Your task to perform on an android device: Search for "razer nari" on costco.com, select the first entry, and add it to the cart. Image 0: 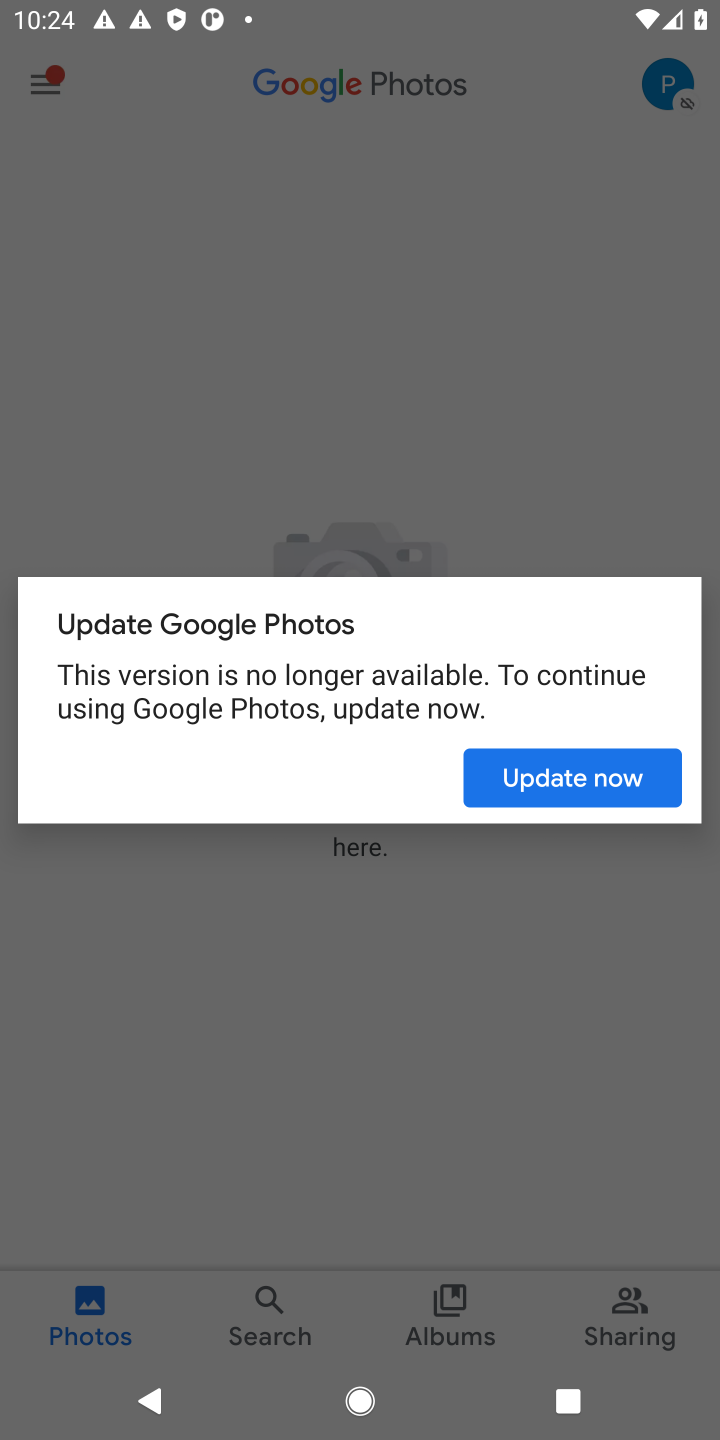
Step 0: press home button
Your task to perform on an android device: Search for "razer nari" on costco.com, select the first entry, and add it to the cart. Image 1: 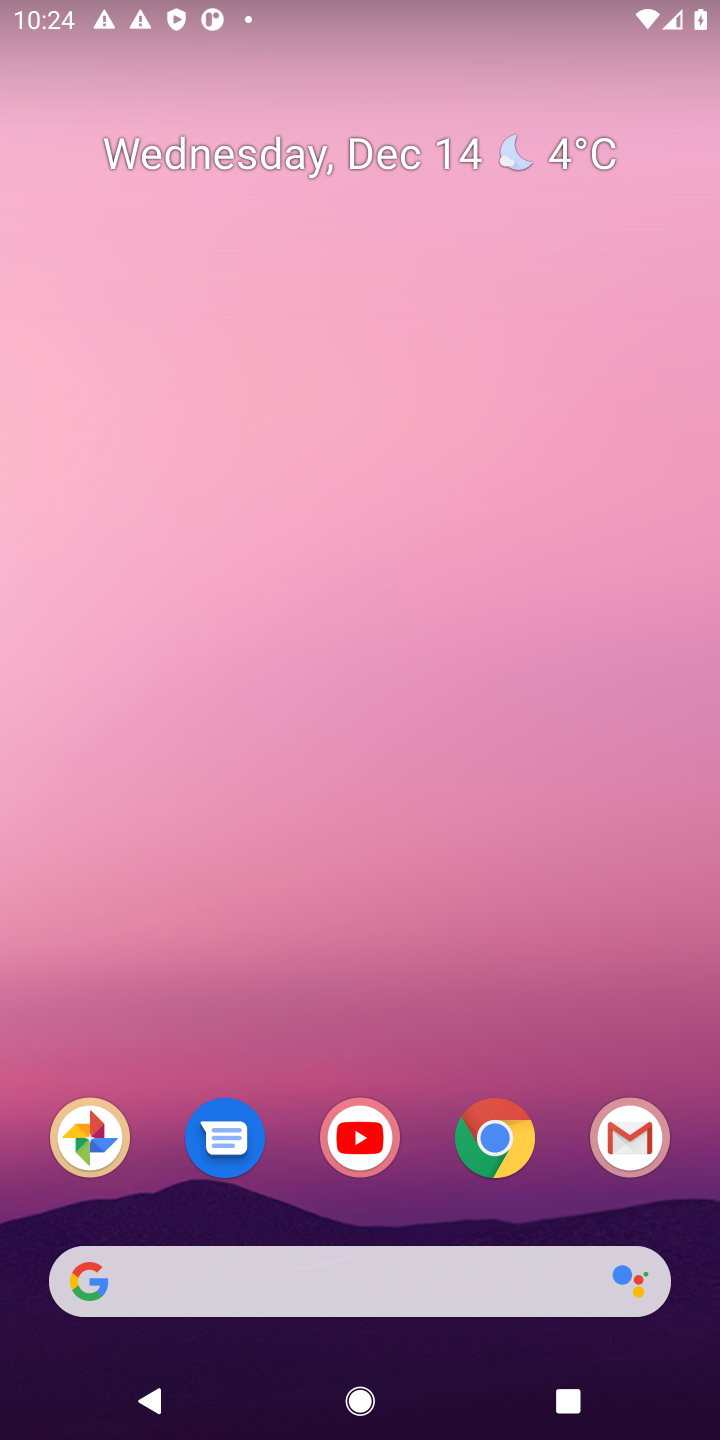
Step 1: click (498, 1151)
Your task to perform on an android device: Search for "razer nari" on costco.com, select the first entry, and add it to the cart. Image 2: 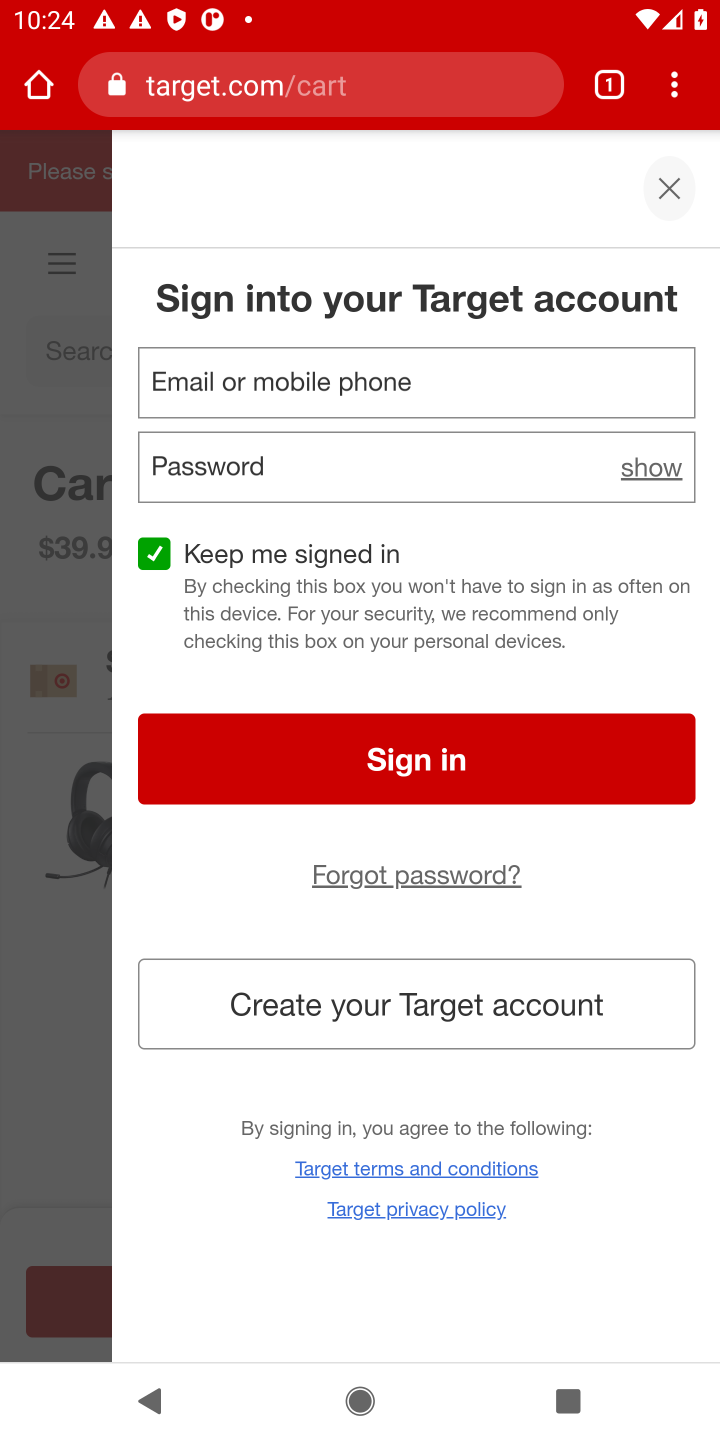
Step 2: click (299, 99)
Your task to perform on an android device: Search for "razer nari" on costco.com, select the first entry, and add it to the cart. Image 3: 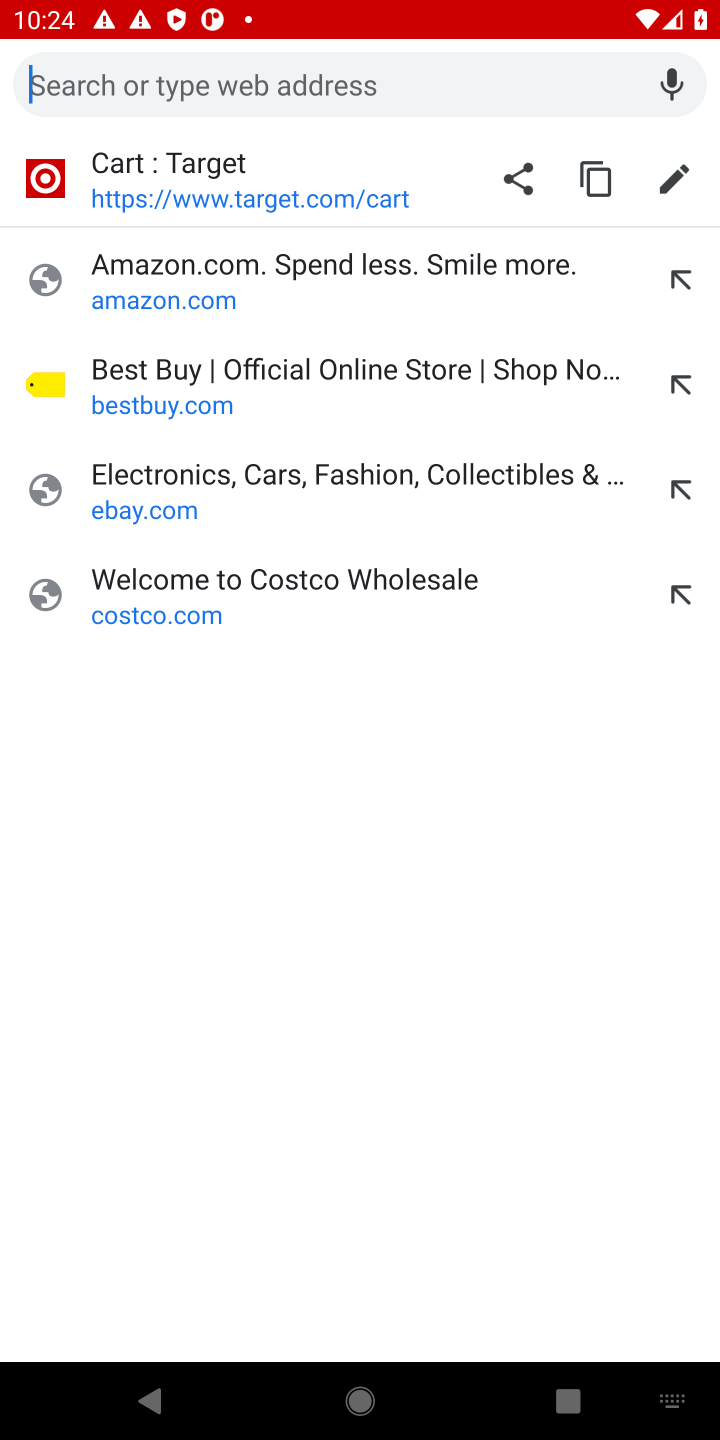
Step 3: click (155, 605)
Your task to perform on an android device: Search for "razer nari" on costco.com, select the first entry, and add it to the cart. Image 4: 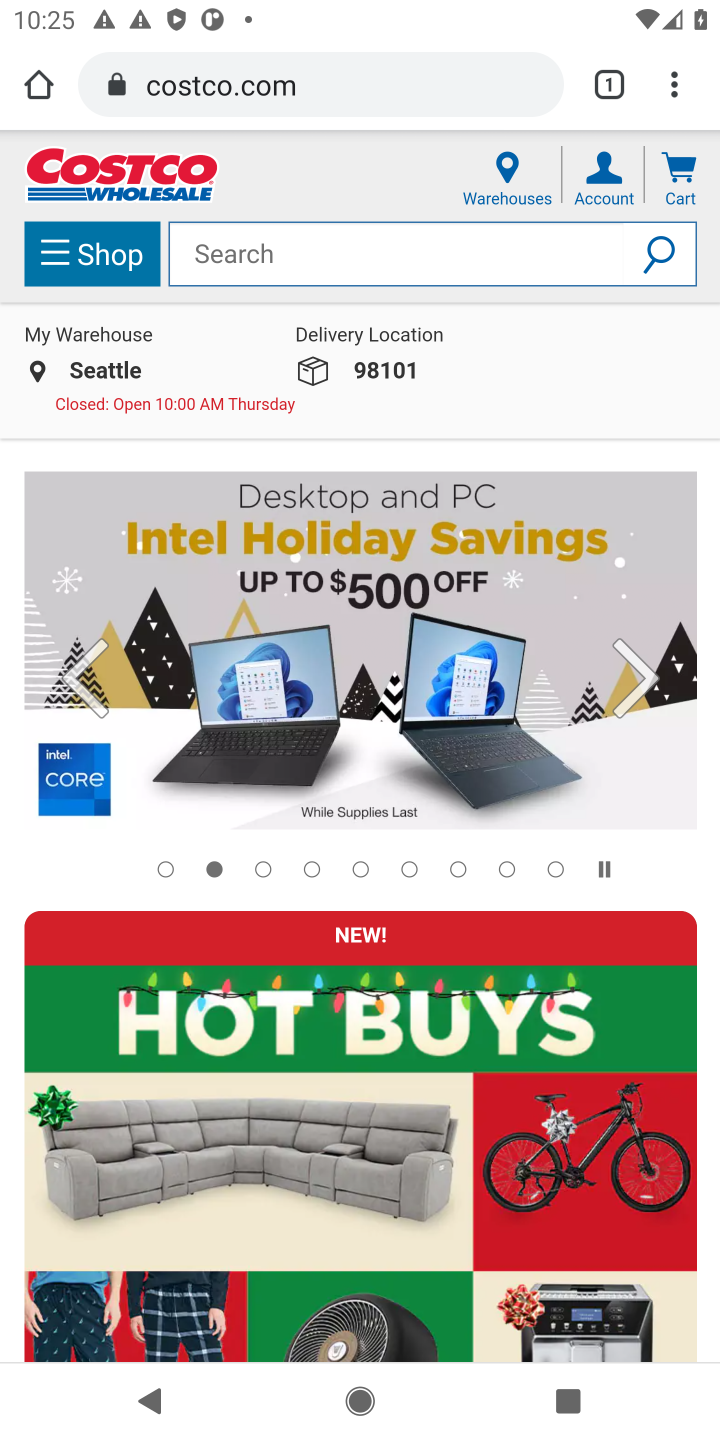
Step 4: click (278, 269)
Your task to perform on an android device: Search for "razer nari" on costco.com, select the first entry, and add it to the cart. Image 5: 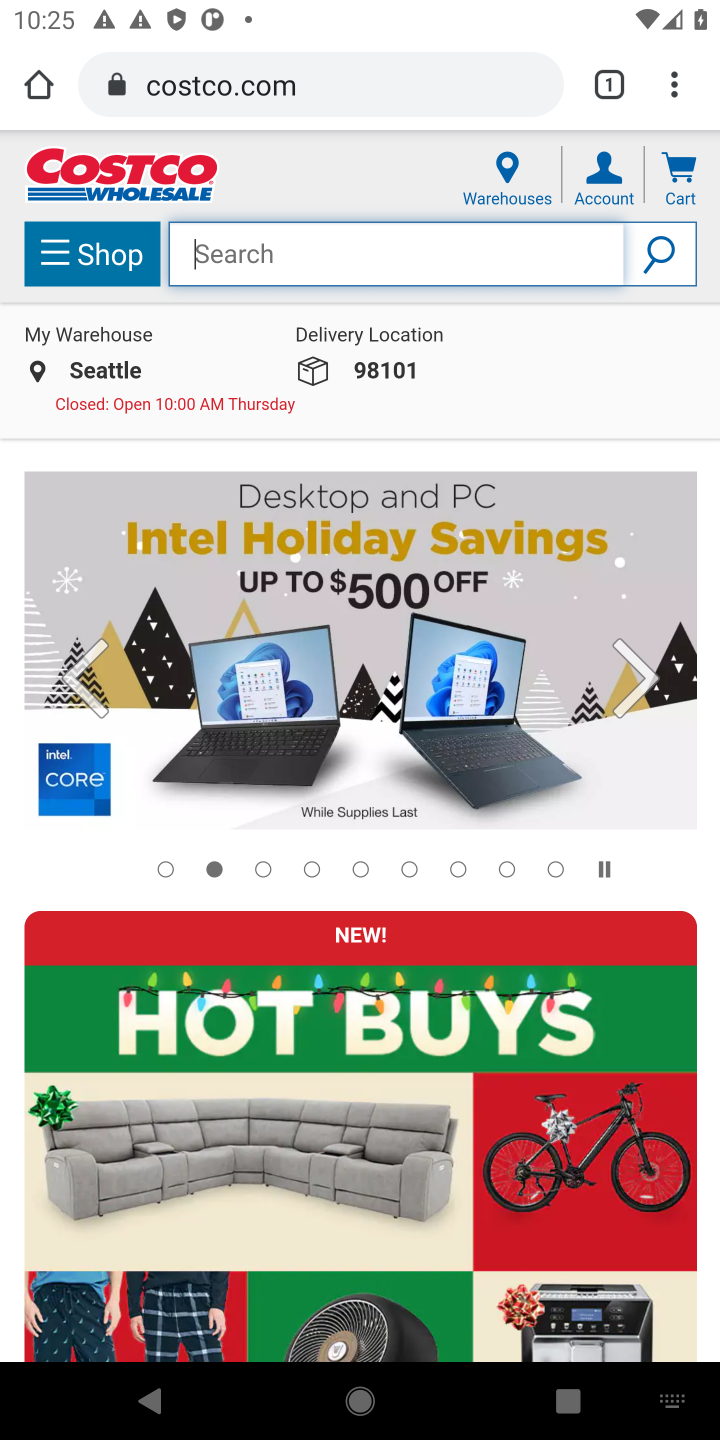
Step 5: type "razer nari"
Your task to perform on an android device: Search for "razer nari" on costco.com, select the first entry, and add it to the cart. Image 6: 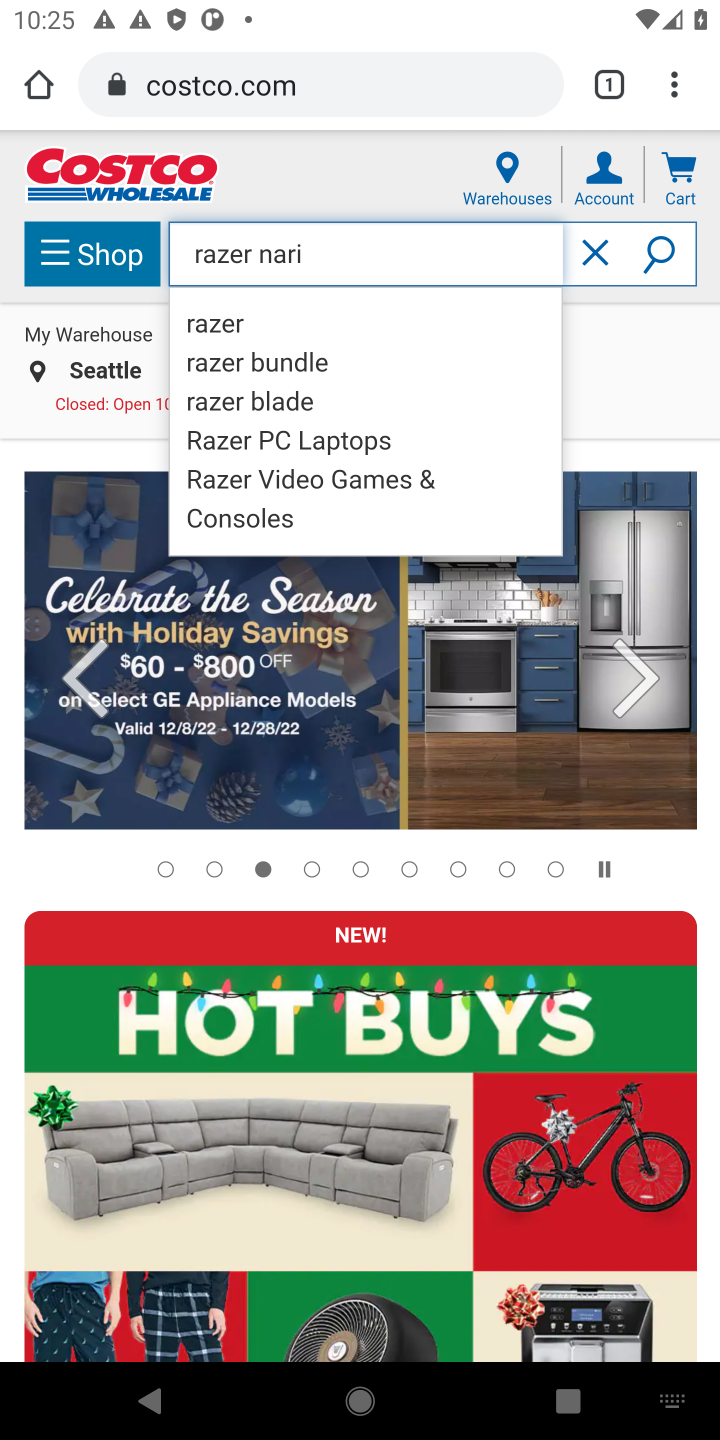
Step 6: click (657, 265)
Your task to perform on an android device: Search for "razer nari" on costco.com, select the first entry, and add it to the cart. Image 7: 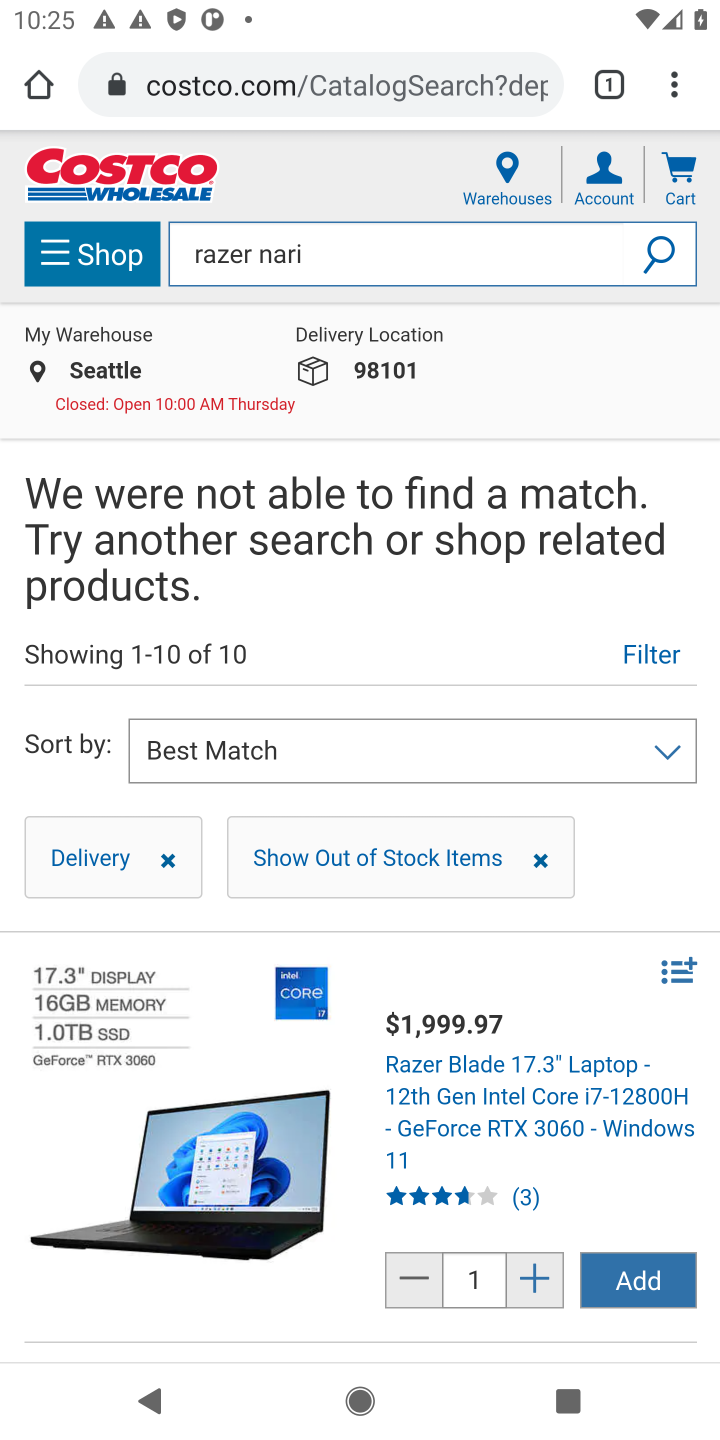
Step 7: task complete